Your task to perform on an android device: read, delete, or share a saved page in the chrome app Image 0: 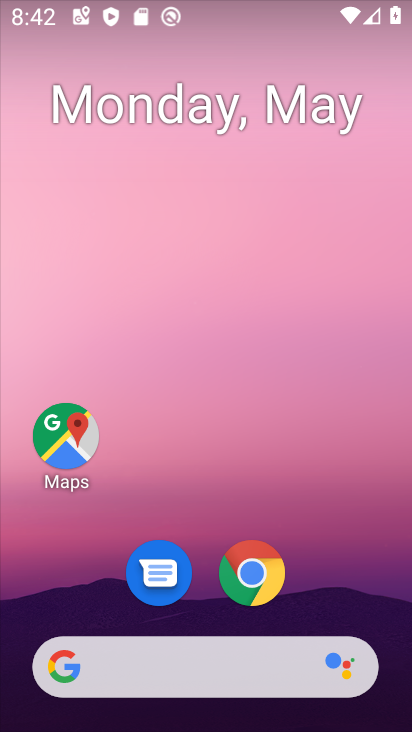
Step 0: drag from (365, 547) to (340, 395)
Your task to perform on an android device: read, delete, or share a saved page in the chrome app Image 1: 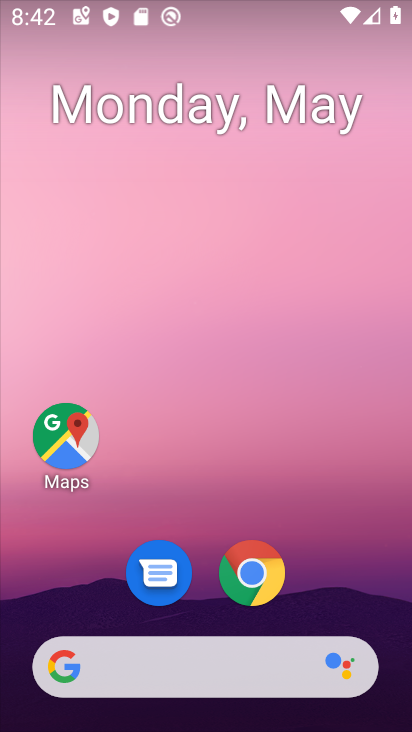
Step 1: click (263, 579)
Your task to perform on an android device: read, delete, or share a saved page in the chrome app Image 2: 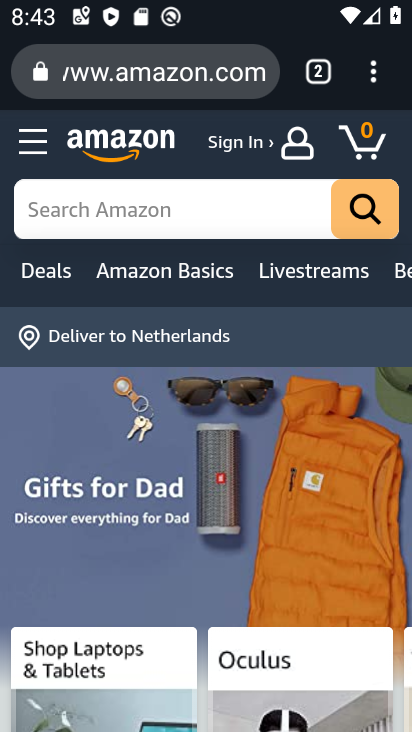
Step 2: click (372, 74)
Your task to perform on an android device: read, delete, or share a saved page in the chrome app Image 3: 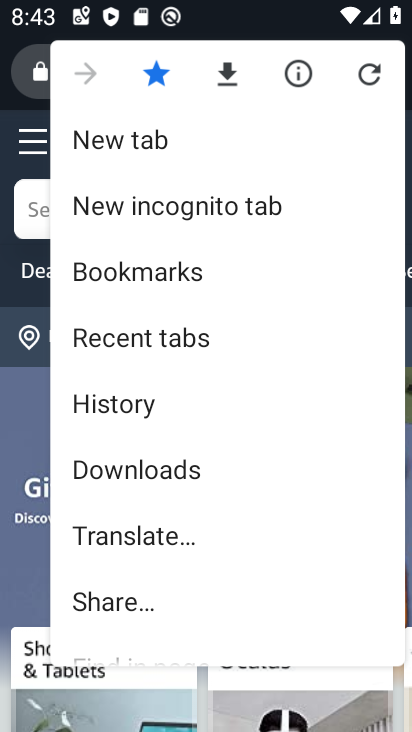
Step 3: click (180, 478)
Your task to perform on an android device: read, delete, or share a saved page in the chrome app Image 4: 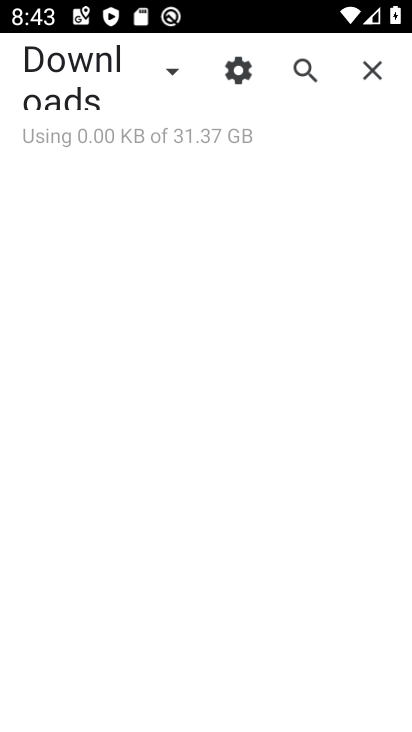
Step 4: task complete